Your task to perform on an android device: create a new album in the google photos Image 0: 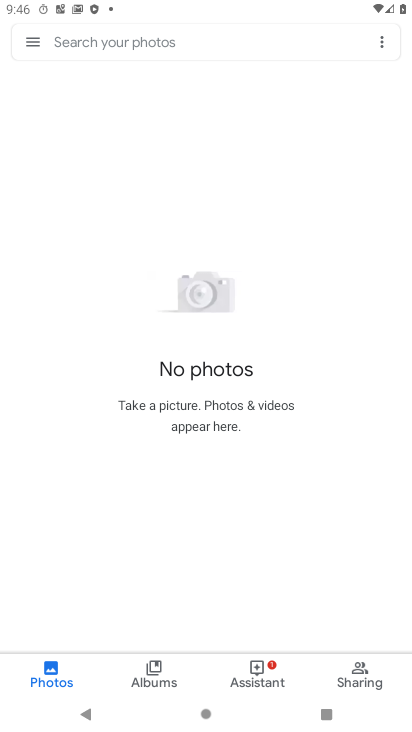
Step 0: press home button
Your task to perform on an android device: create a new album in the google photos Image 1: 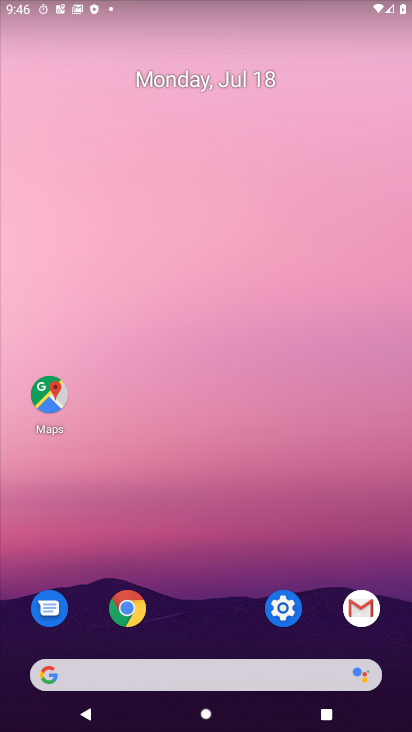
Step 1: drag from (294, 652) to (381, 0)
Your task to perform on an android device: create a new album in the google photos Image 2: 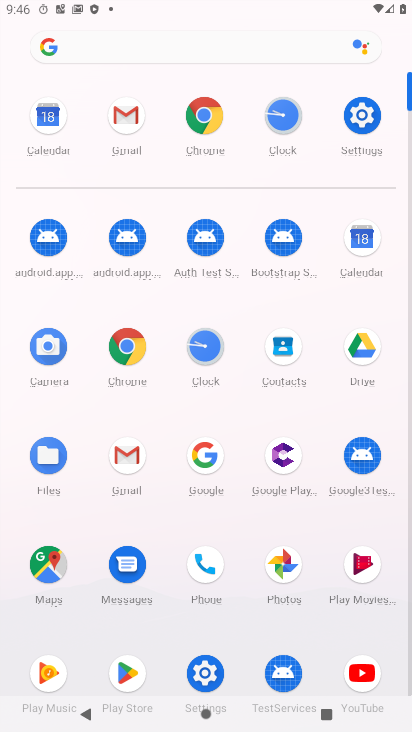
Step 2: click (281, 570)
Your task to perform on an android device: create a new album in the google photos Image 3: 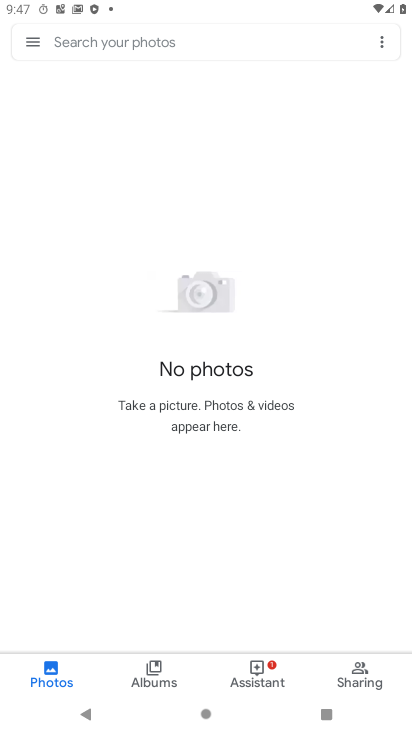
Step 3: task complete